Your task to perform on an android device: open a bookmark in the chrome app Image 0: 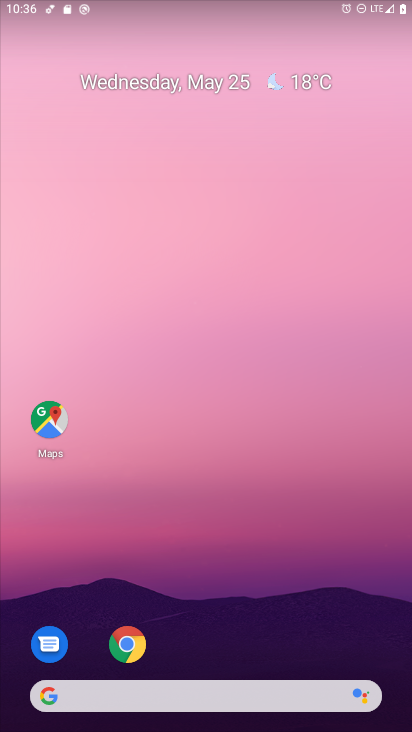
Step 0: drag from (199, 656) to (195, 89)
Your task to perform on an android device: open a bookmark in the chrome app Image 1: 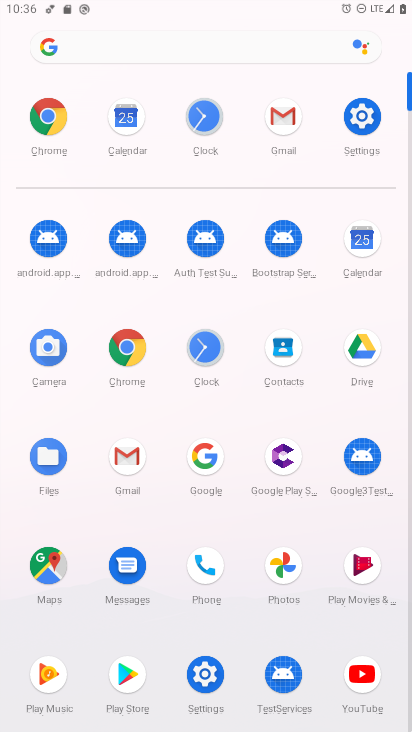
Step 1: click (45, 106)
Your task to perform on an android device: open a bookmark in the chrome app Image 2: 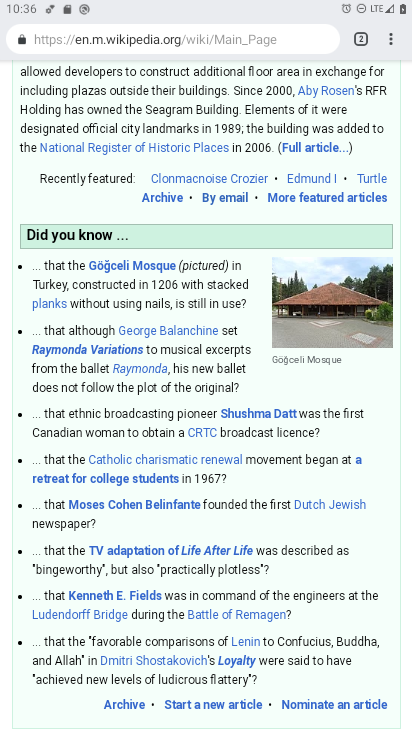
Step 2: click (392, 36)
Your task to perform on an android device: open a bookmark in the chrome app Image 3: 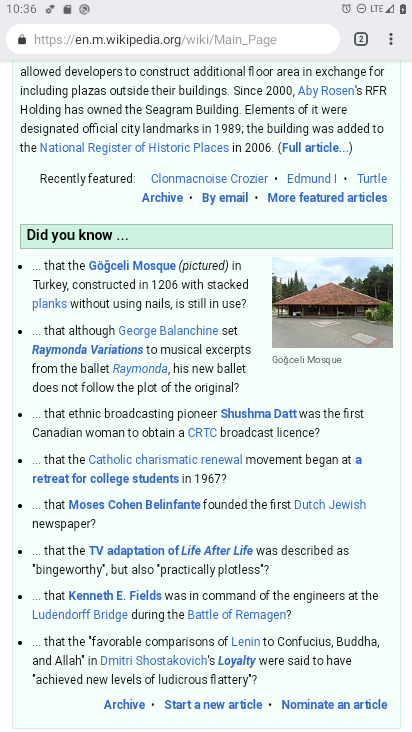
Step 3: click (387, 34)
Your task to perform on an android device: open a bookmark in the chrome app Image 4: 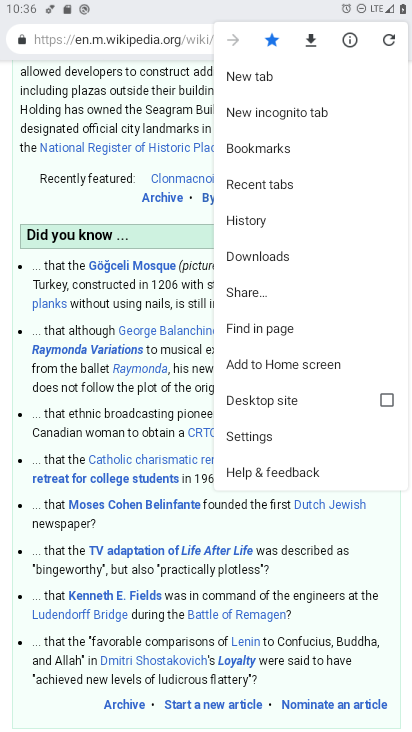
Step 4: click (295, 144)
Your task to perform on an android device: open a bookmark in the chrome app Image 5: 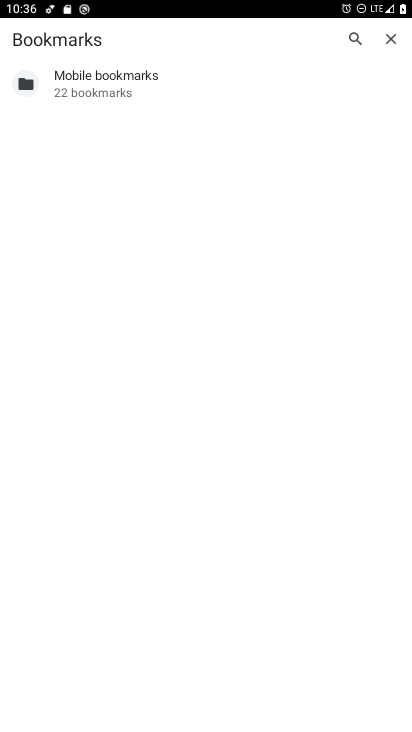
Step 5: click (143, 78)
Your task to perform on an android device: open a bookmark in the chrome app Image 6: 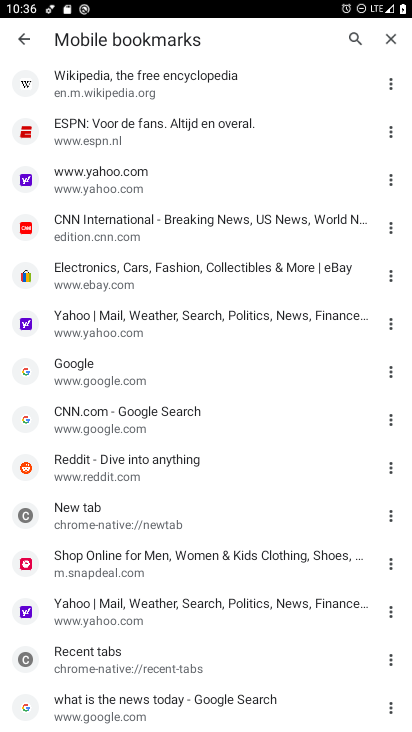
Step 6: task complete